Your task to perform on an android device: toggle translation in the chrome app Image 0: 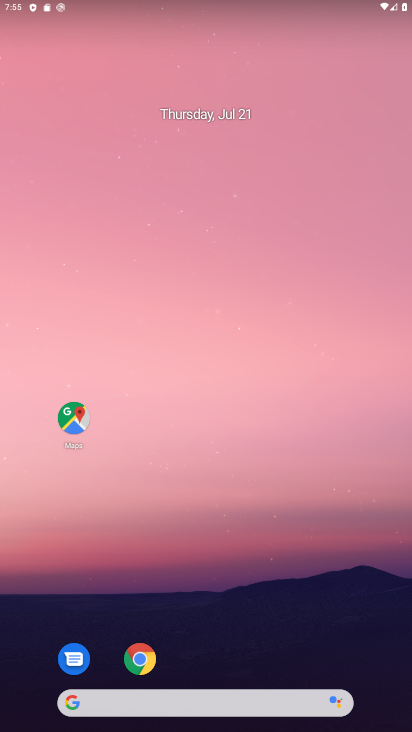
Step 0: drag from (252, 667) to (314, 305)
Your task to perform on an android device: toggle translation in the chrome app Image 1: 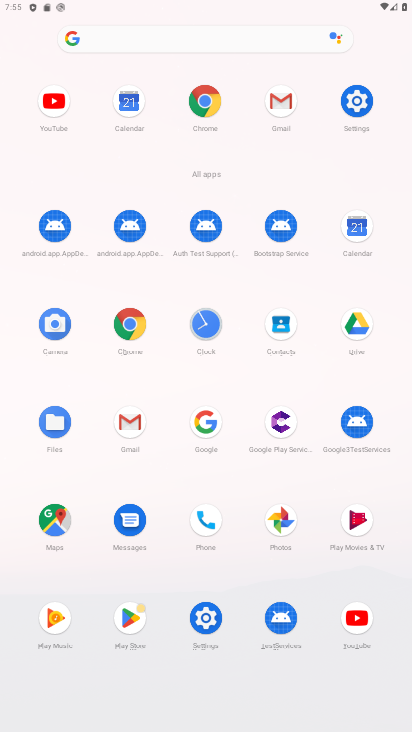
Step 1: click (205, 98)
Your task to perform on an android device: toggle translation in the chrome app Image 2: 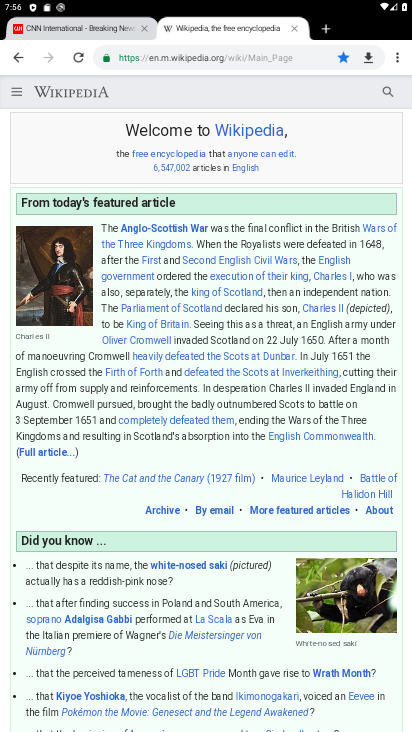
Step 2: click (393, 49)
Your task to perform on an android device: toggle translation in the chrome app Image 3: 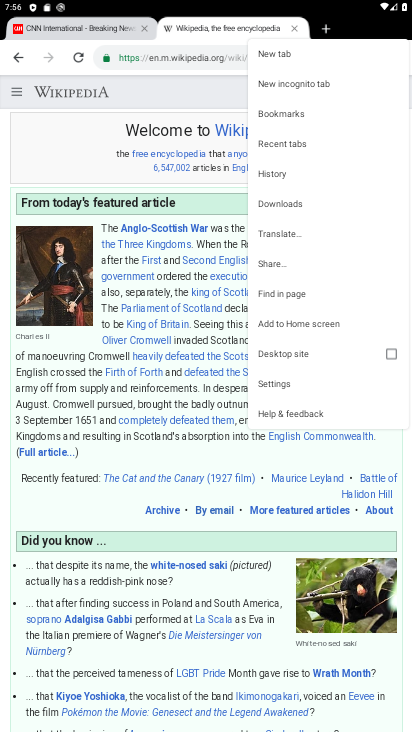
Step 3: click (301, 384)
Your task to perform on an android device: toggle translation in the chrome app Image 4: 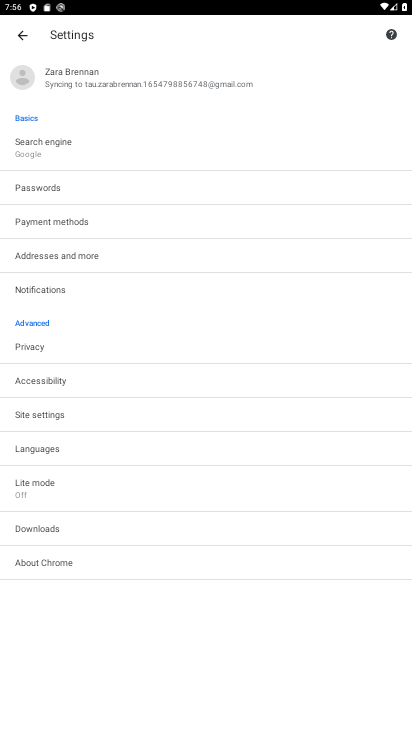
Step 4: click (109, 453)
Your task to perform on an android device: toggle translation in the chrome app Image 5: 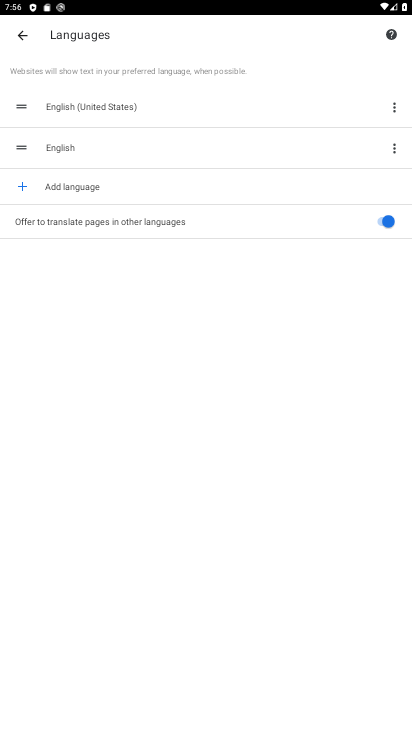
Step 5: click (391, 215)
Your task to perform on an android device: toggle translation in the chrome app Image 6: 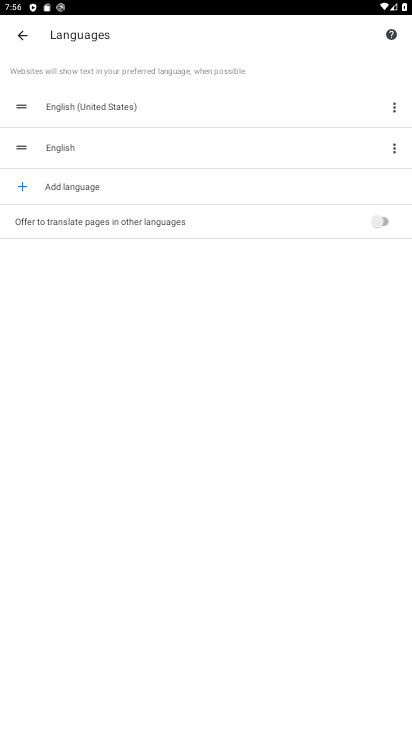
Step 6: task complete